Your task to perform on an android device: Go to battery settings Image 0: 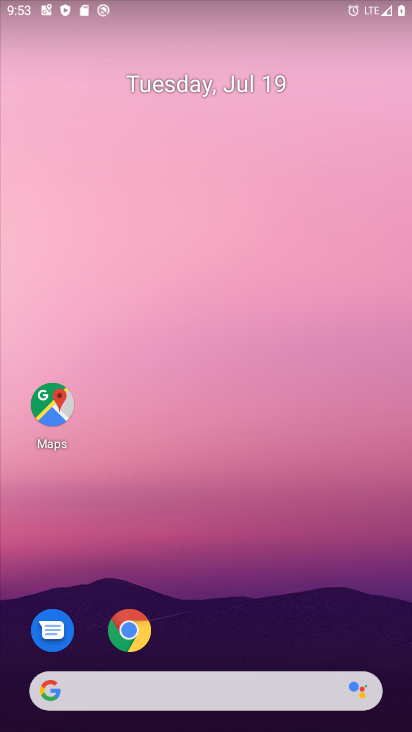
Step 0: drag from (208, 574) to (253, 53)
Your task to perform on an android device: Go to battery settings Image 1: 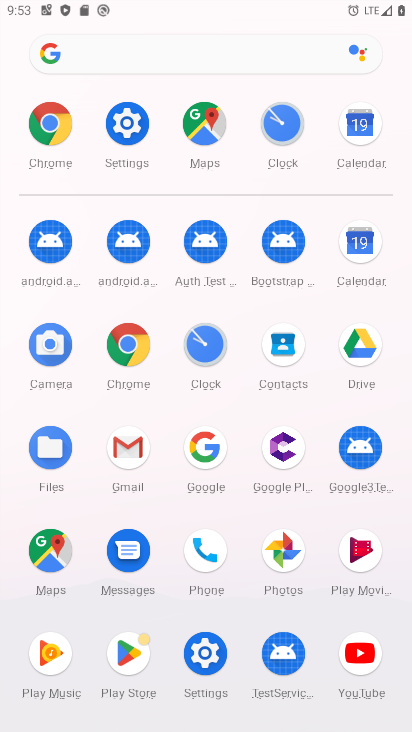
Step 1: click (130, 114)
Your task to perform on an android device: Go to battery settings Image 2: 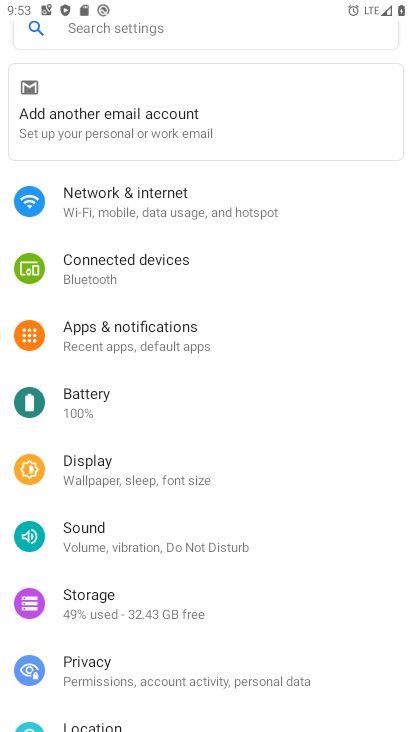
Step 2: drag from (134, 615) to (129, 320)
Your task to perform on an android device: Go to battery settings Image 3: 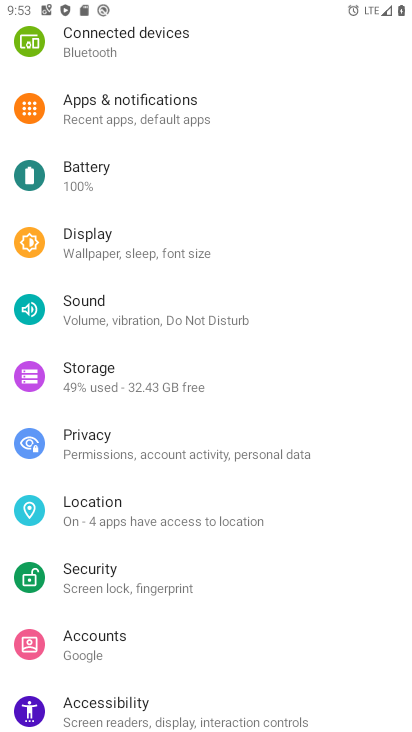
Step 3: drag from (128, 248) to (124, 546)
Your task to perform on an android device: Go to battery settings Image 4: 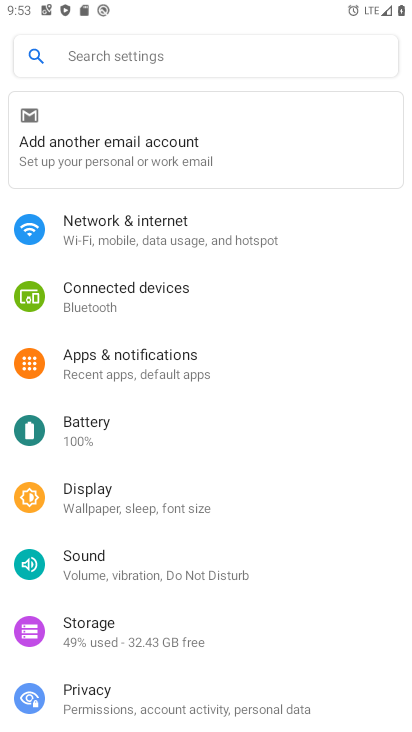
Step 4: click (94, 428)
Your task to perform on an android device: Go to battery settings Image 5: 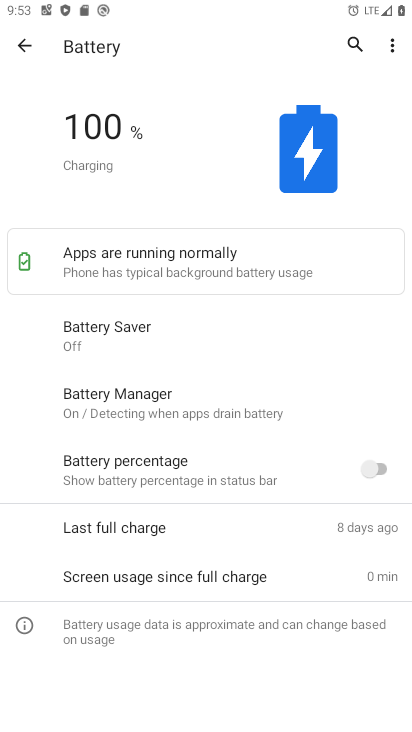
Step 5: task complete